Your task to perform on an android device: remove spam from my inbox in the gmail app Image 0: 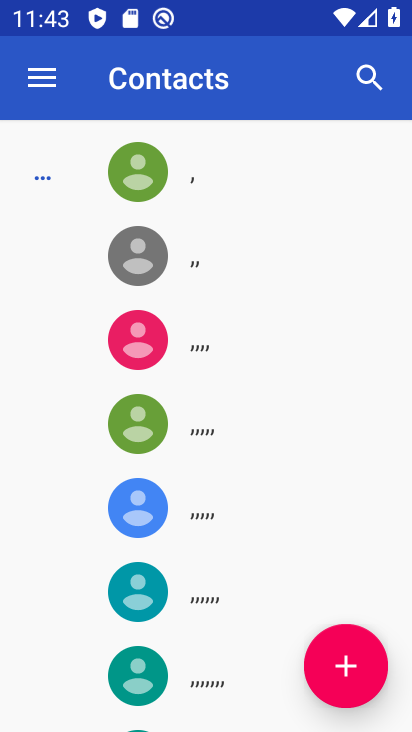
Step 0: press home button
Your task to perform on an android device: remove spam from my inbox in the gmail app Image 1: 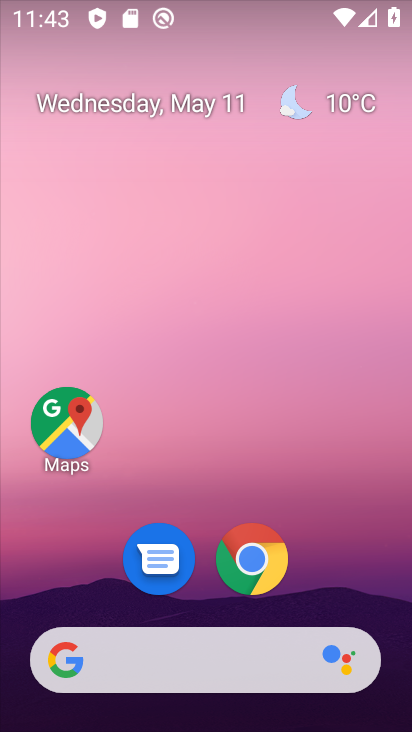
Step 1: drag from (342, 564) to (271, 73)
Your task to perform on an android device: remove spam from my inbox in the gmail app Image 2: 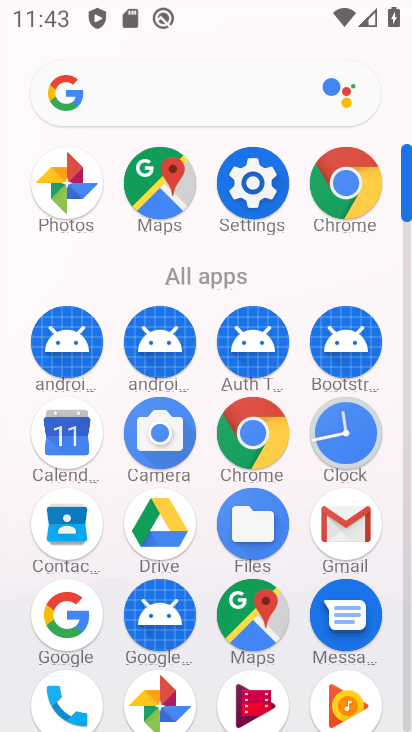
Step 2: click (370, 535)
Your task to perform on an android device: remove spam from my inbox in the gmail app Image 3: 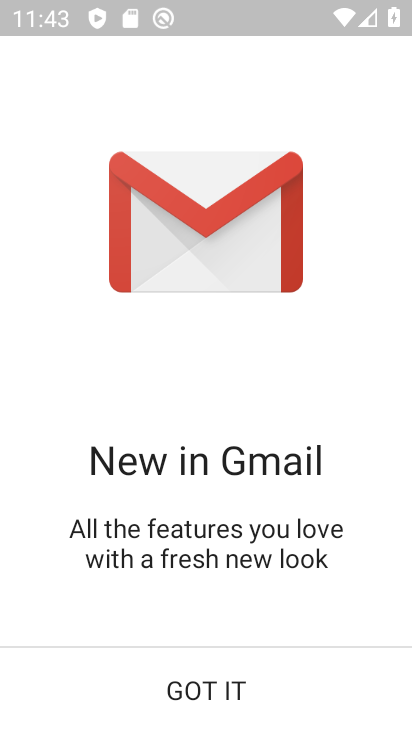
Step 3: click (242, 711)
Your task to perform on an android device: remove spam from my inbox in the gmail app Image 4: 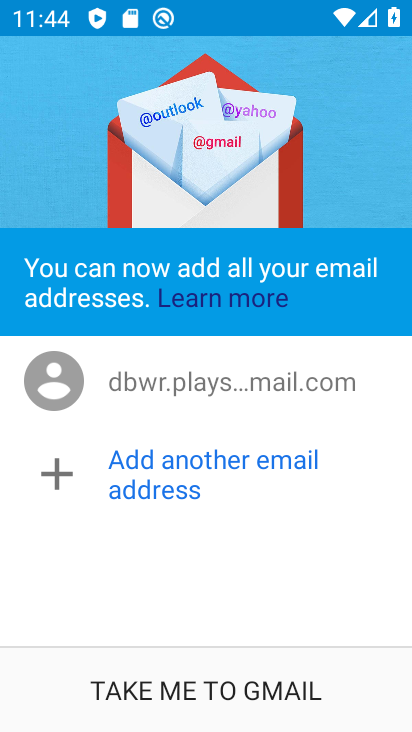
Step 4: click (156, 684)
Your task to perform on an android device: remove spam from my inbox in the gmail app Image 5: 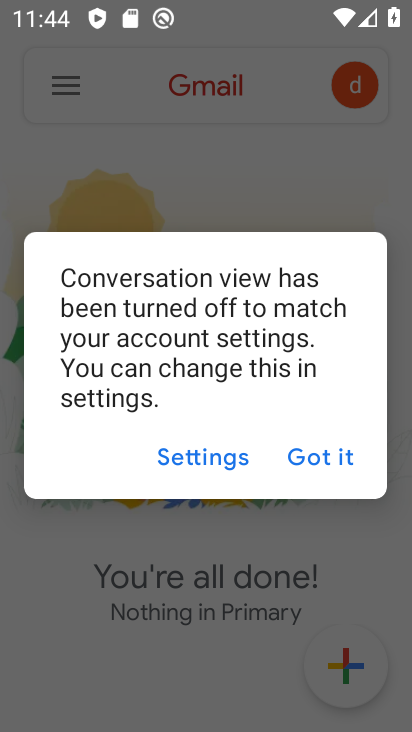
Step 5: click (287, 457)
Your task to perform on an android device: remove spam from my inbox in the gmail app Image 6: 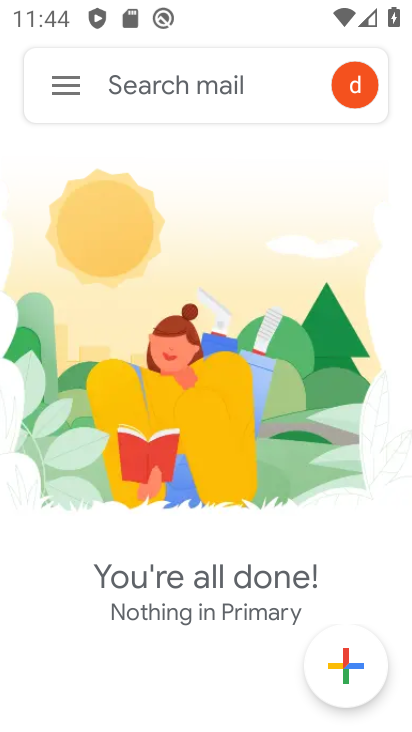
Step 6: click (65, 97)
Your task to perform on an android device: remove spam from my inbox in the gmail app Image 7: 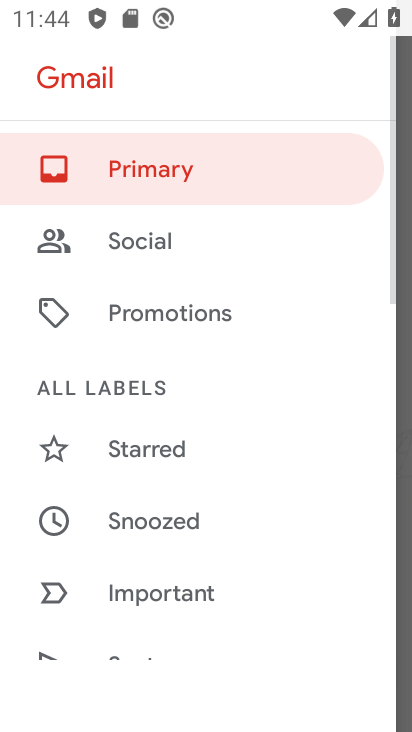
Step 7: drag from (192, 591) to (153, 161)
Your task to perform on an android device: remove spam from my inbox in the gmail app Image 8: 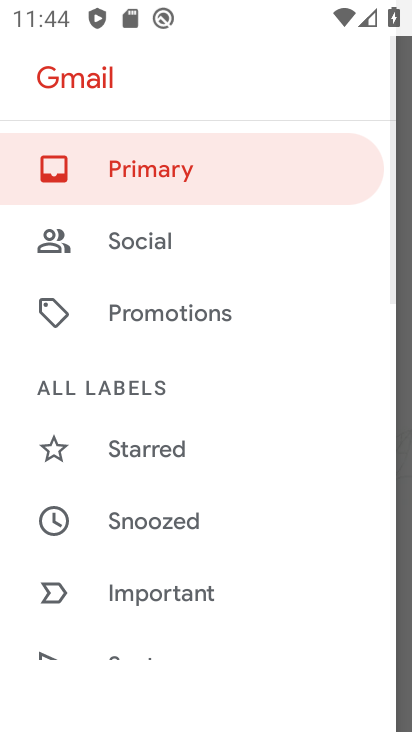
Step 8: drag from (180, 570) to (198, 273)
Your task to perform on an android device: remove spam from my inbox in the gmail app Image 9: 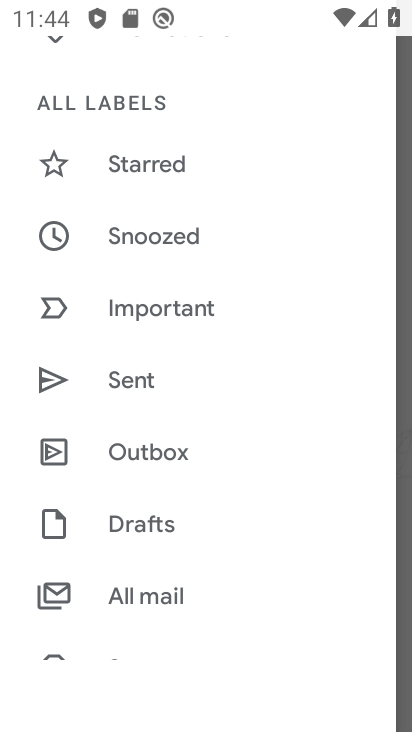
Step 9: drag from (187, 485) to (194, 295)
Your task to perform on an android device: remove spam from my inbox in the gmail app Image 10: 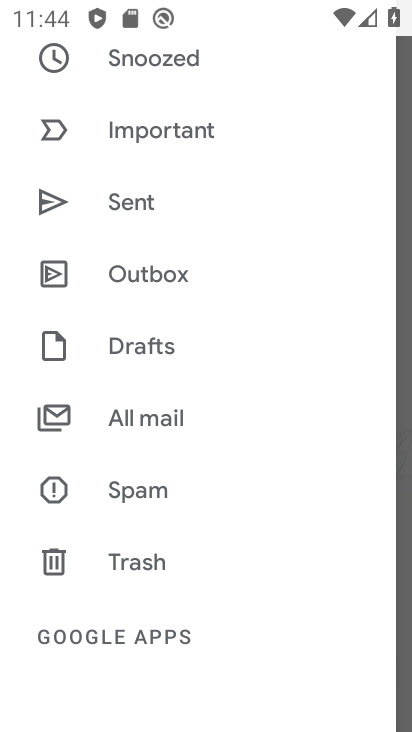
Step 10: click (161, 425)
Your task to perform on an android device: remove spam from my inbox in the gmail app Image 11: 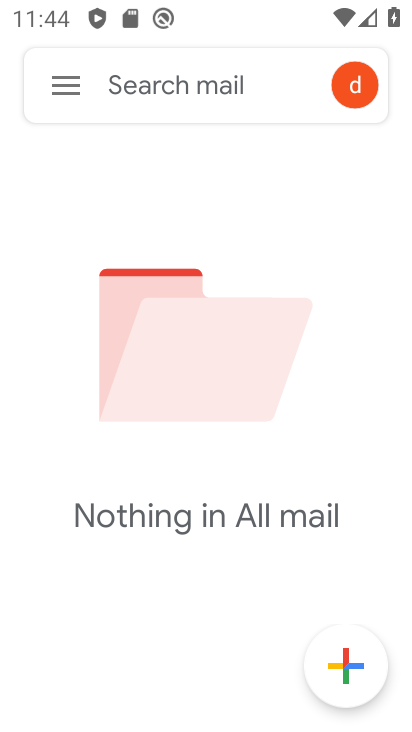
Step 11: task complete